Your task to perform on an android device: turn off smart reply in the gmail app Image 0: 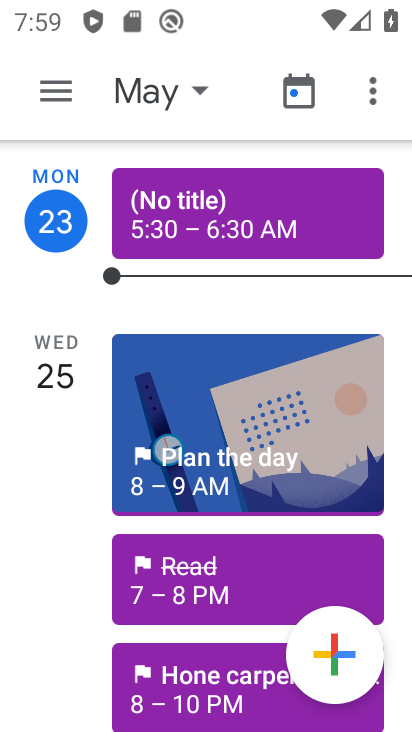
Step 0: press home button
Your task to perform on an android device: turn off smart reply in the gmail app Image 1: 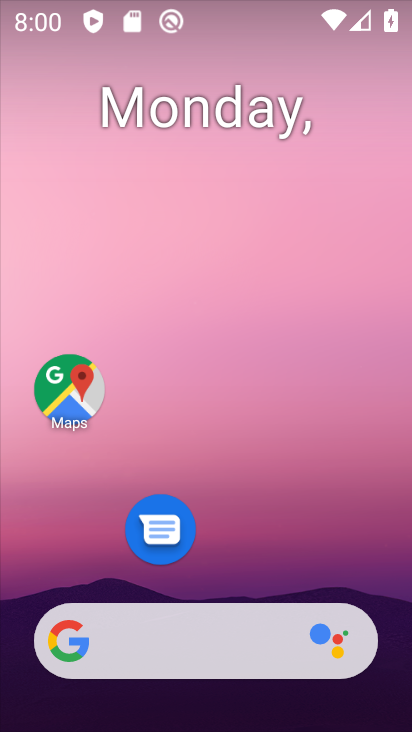
Step 1: drag from (238, 569) to (238, 132)
Your task to perform on an android device: turn off smart reply in the gmail app Image 2: 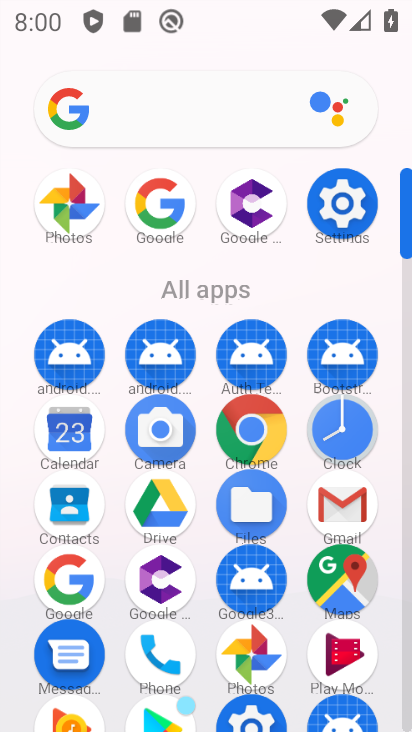
Step 2: click (329, 491)
Your task to perform on an android device: turn off smart reply in the gmail app Image 3: 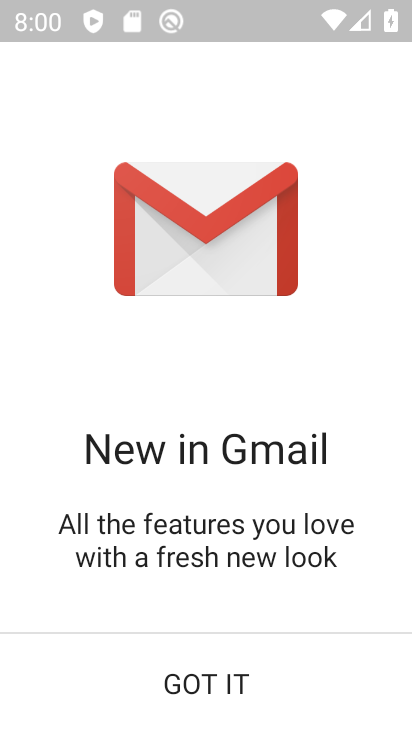
Step 3: click (253, 686)
Your task to perform on an android device: turn off smart reply in the gmail app Image 4: 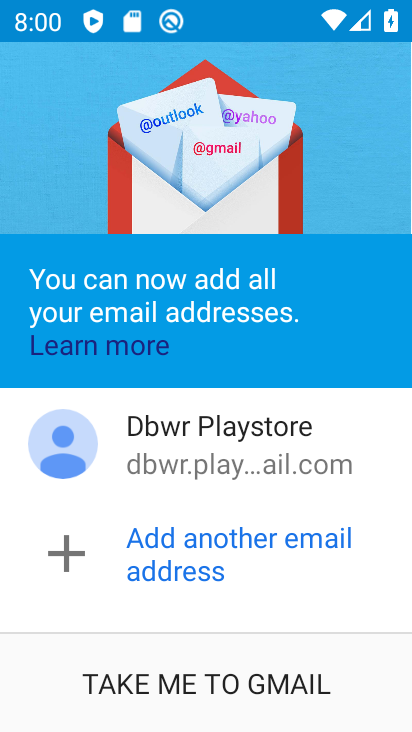
Step 4: click (253, 686)
Your task to perform on an android device: turn off smart reply in the gmail app Image 5: 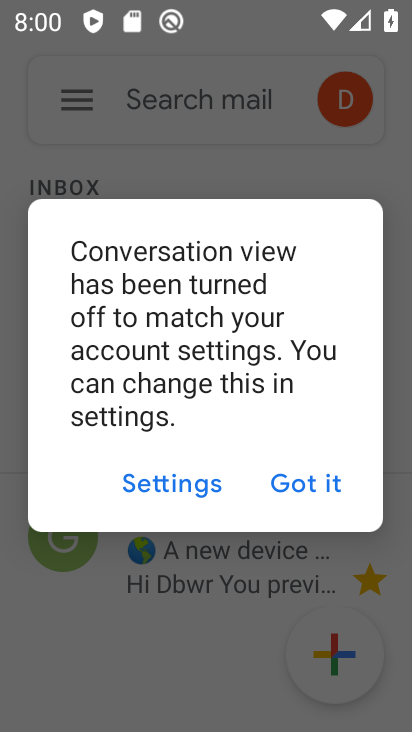
Step 5: click (324, 484)
Your task to perform on an android device: turn off smart reply in the gmail app Image 6: 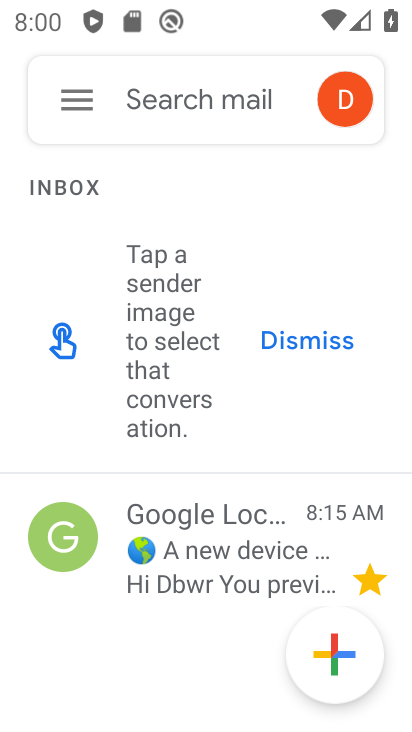
Step 6: click (70, 84)
Your task to perform on an android device: turn off smart reply in the gmail app Image 7: 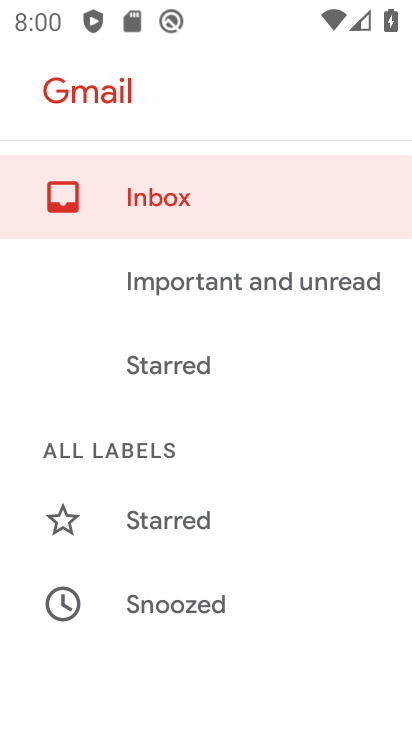
Step 7: drag from (181, 615) to (227, 233)
Your task to perform on an android device: turn off smart reply in the gmail app Image 8: 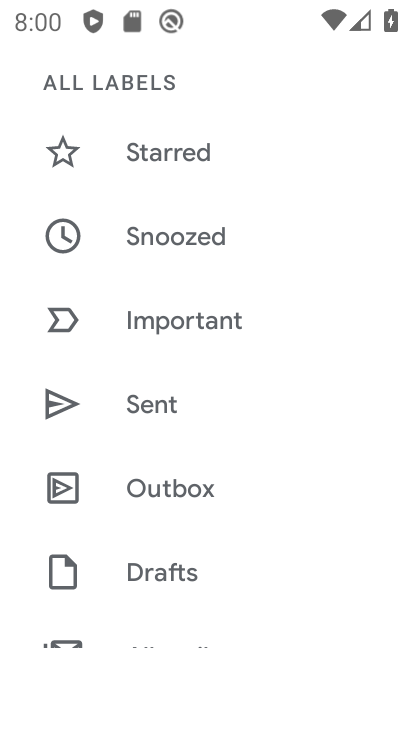
Step 8: drag from (245, 611) to (255, 189)
Your task to perform on an android device: turn off smart reply in the gmail app Image 9: 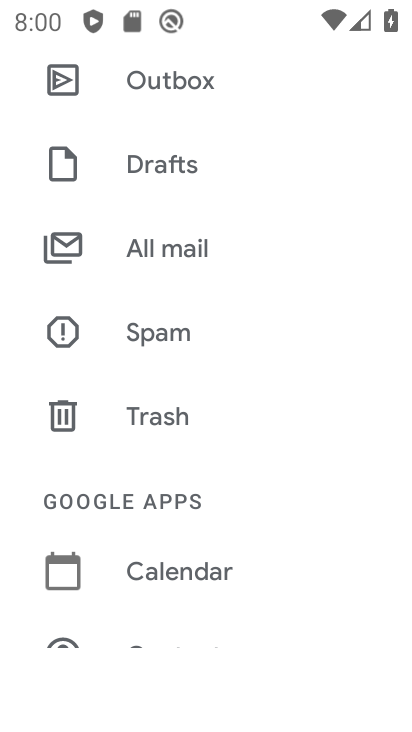
Step 9: drag from (239, 597) to (245, 193)
Your task to perform on an android device: turn off smart reply in the gmail app Image 10: 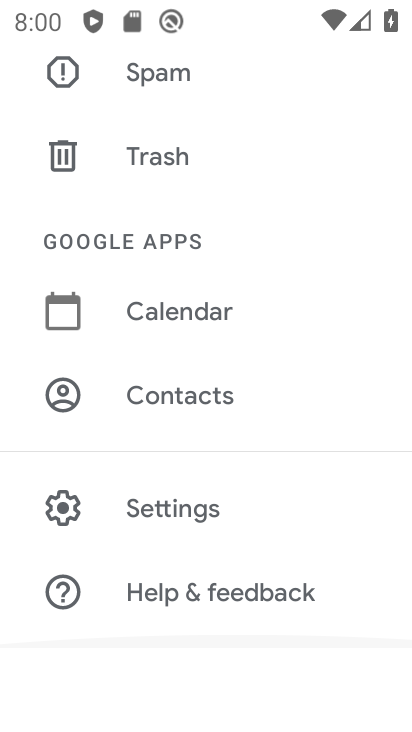
Step 10: click (213, 490)
Your task to perform on an android device: turn off smart reply in the gmail app Image 11: 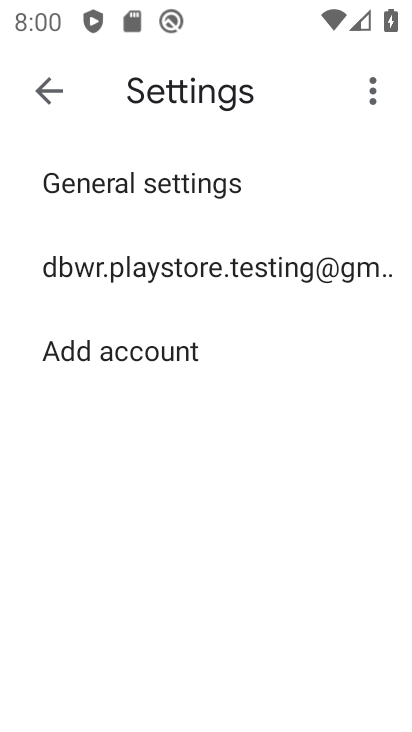
Step 11: click (225, 277)
Your task to perform on an android device: turn off smart reply in the gmail app Image 12: 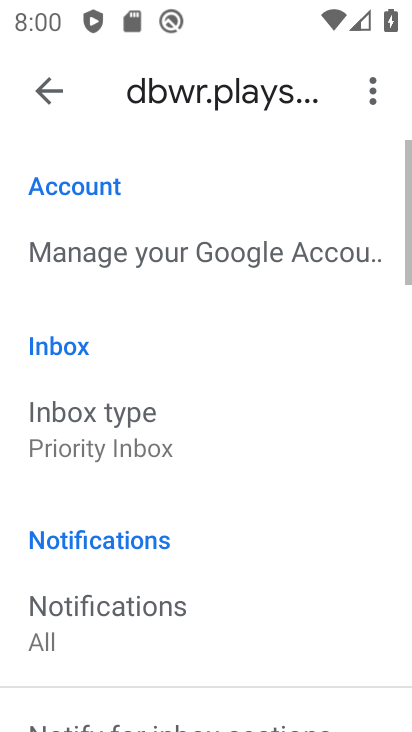
Step 12: drag from (274, 617) to (279, 126)
Your task to perform on an android device: turn off smart reply in the gmail app Image 13: 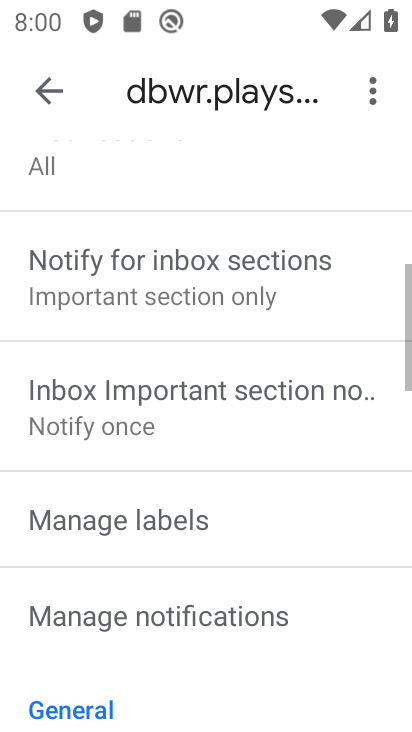
Step 13: drag from (249, 620) to (221, 175)
Your task to perform on an android device: turn off smart reply in the gmail app Image 14: 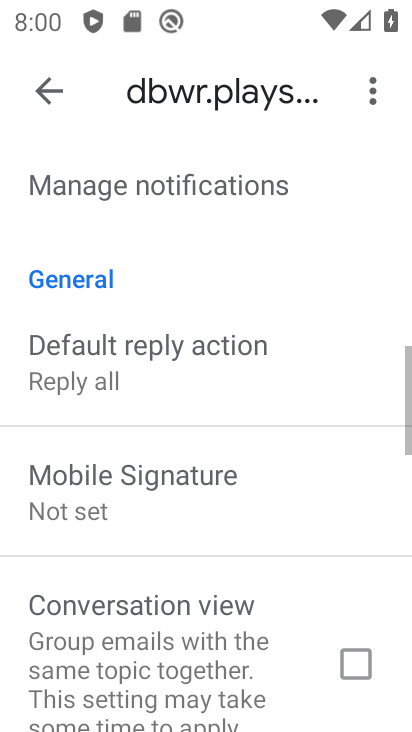
Step 14: drag from (239, 625) to (247, 238)
Your task to perform on an android device: turn off smart reply in the gmail app Image 15: 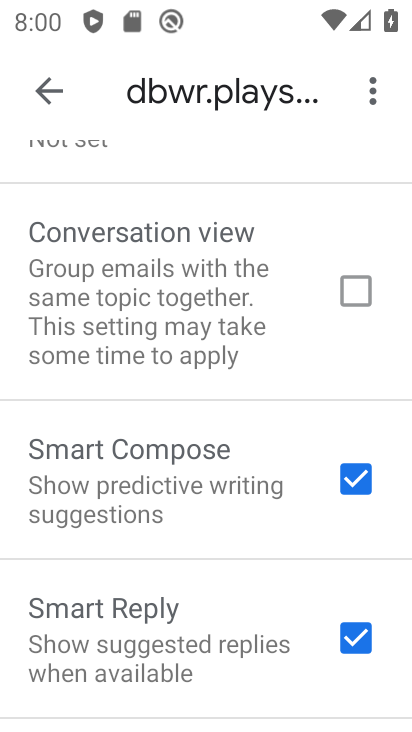
Step 15: click (344, 636)
Your task to perform on an android device: turn off smart reply in the gmail app Image 16: 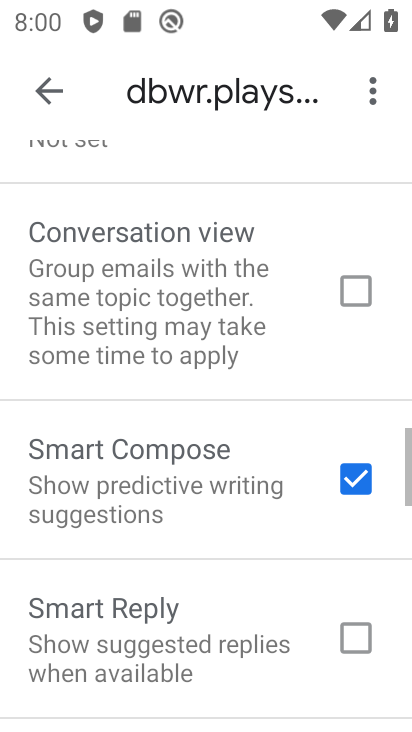
Step 16: task complete